Your task to perform on an android device: Go to eBay Image 0: 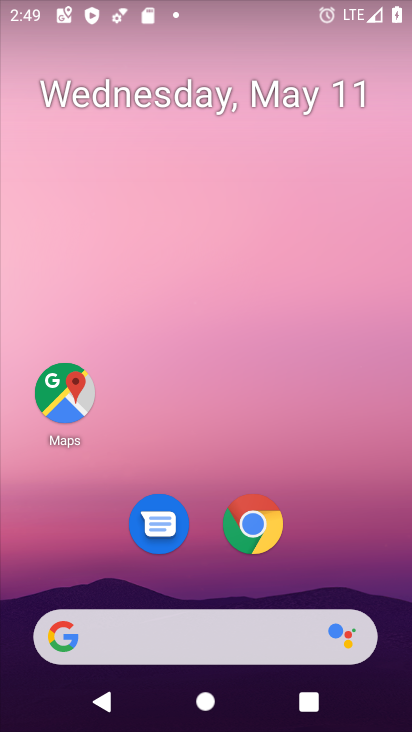
Step 0: click (278, 632)
Your task to perform on an android device: Go to eBay Image 1: 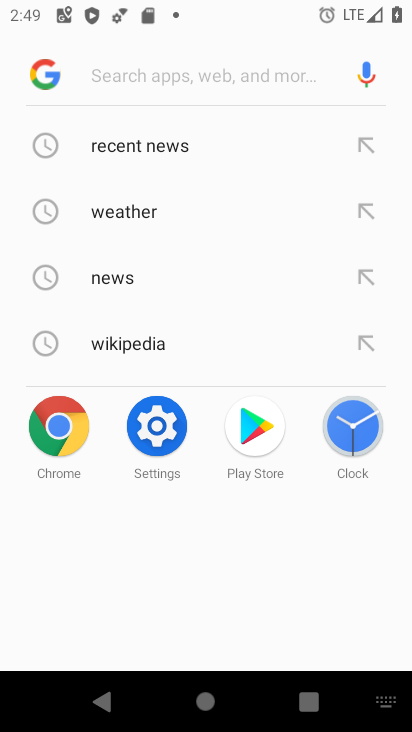
Step 1: type "rbay"
Your task to perform on an android device: Go to eBay Image 2: 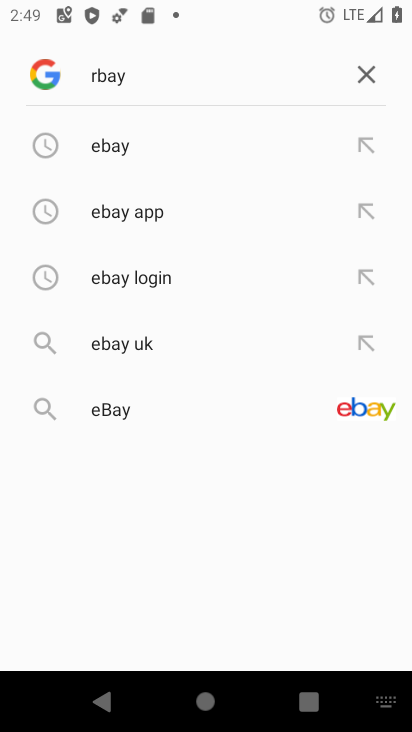
Step 2: click (108, 400)
Your task to perform on an android device: Go to eBay Image 3: 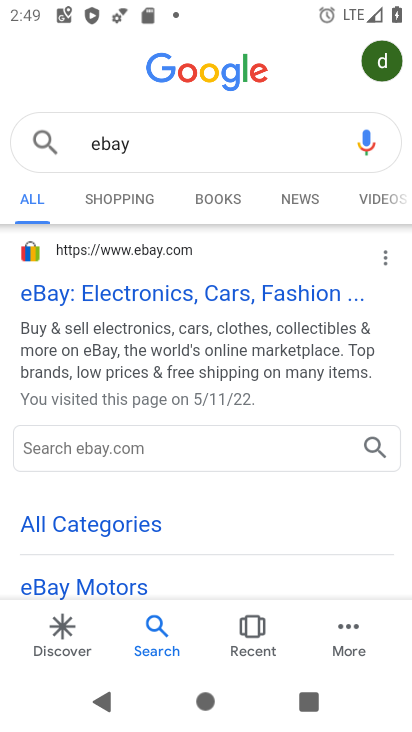
Step 3: click (96, 283)
Your task to perform on an android device: Go to eBay Image 4: 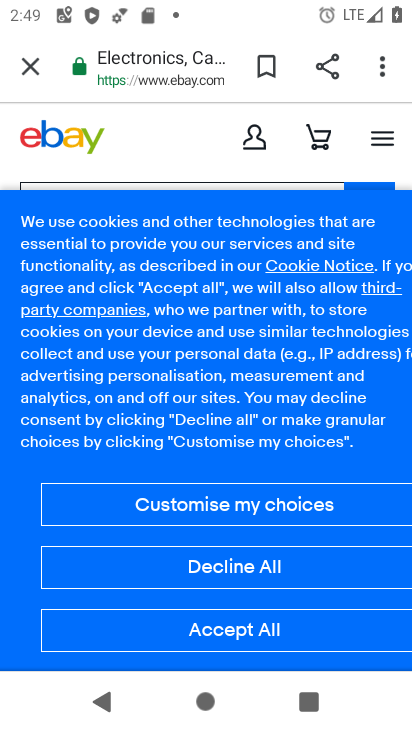
Step 4: task complete